Your task to perform on an android device: clear history in the chrome app Image 0: 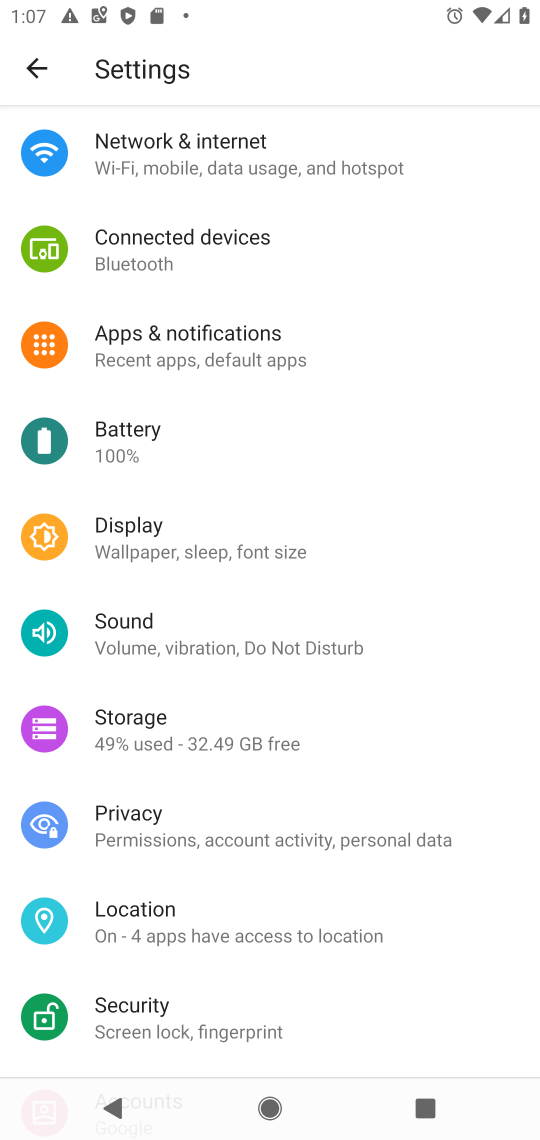
Step 0: press home button
Your task to perform on an android device: clear history in the chrome app Image 1: 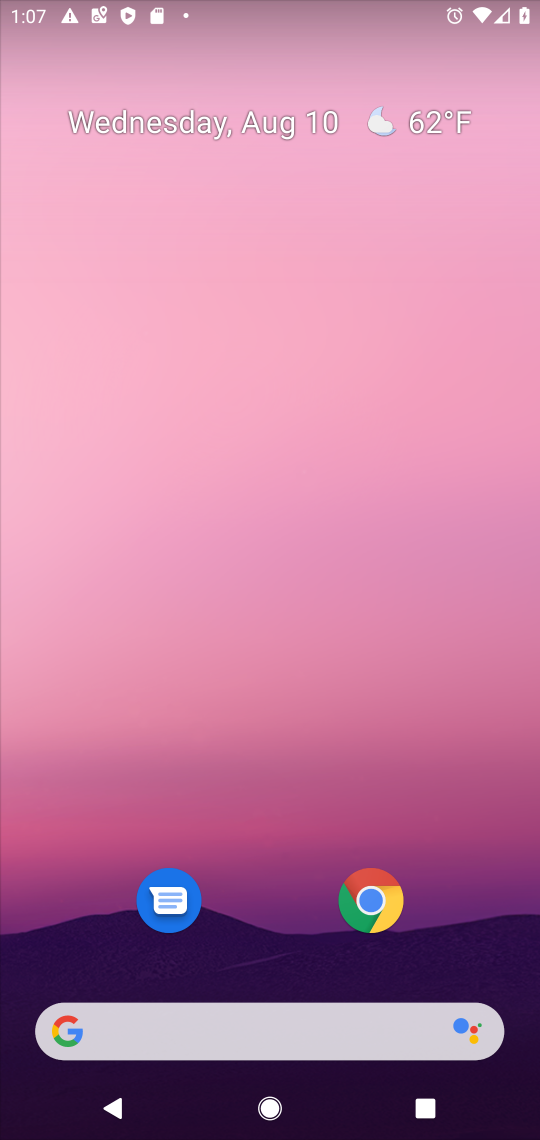
Step 1: click (365, 909)
Your task to perform on an android device: clear history in the chrome app Image 2: 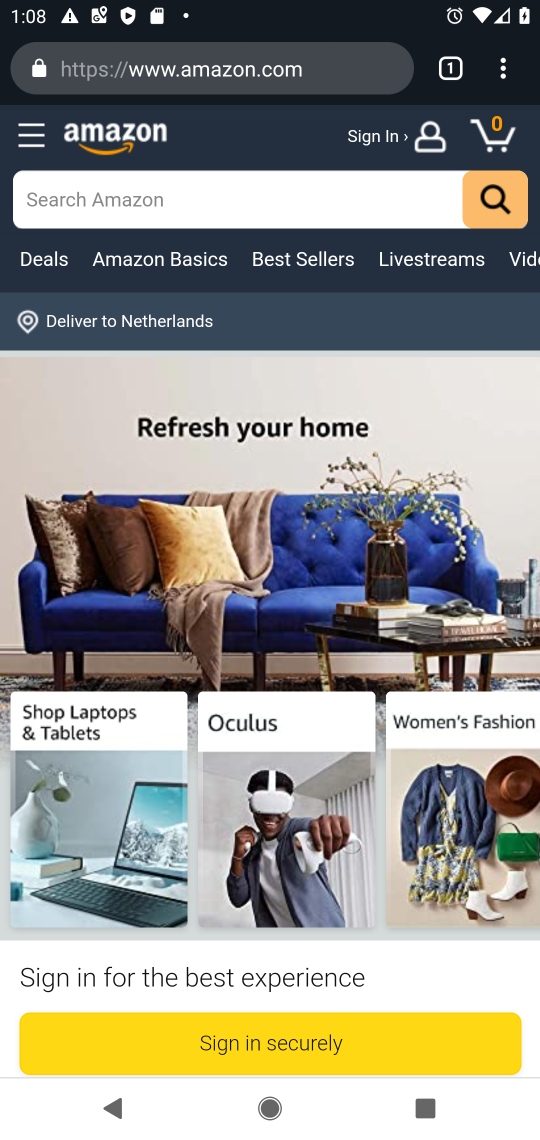
Step 2: click (507, 78)
Your task to perform on an android device: clear history in the chrome app Image 3: 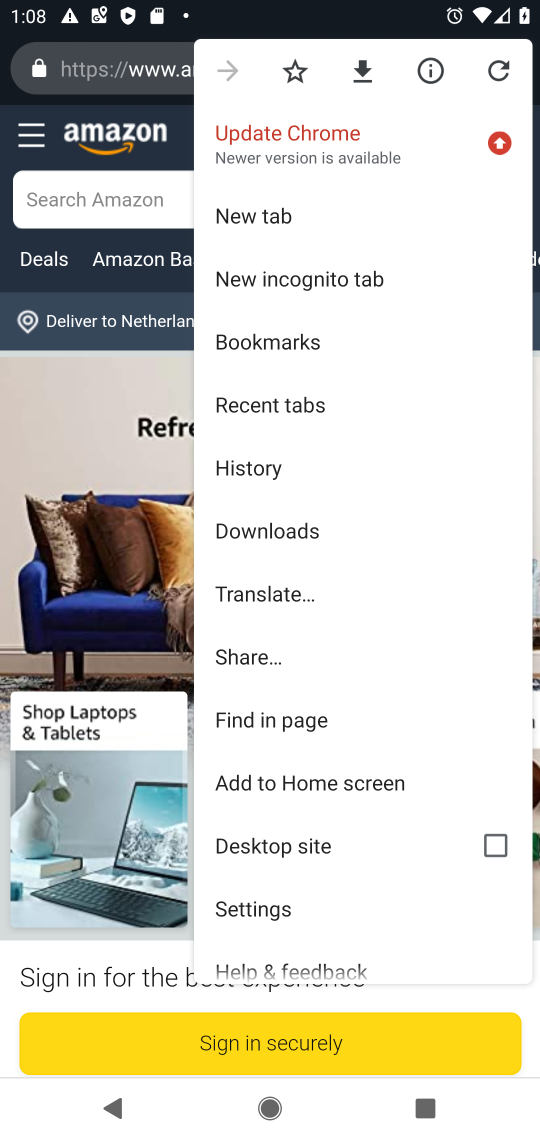
Step 3: click (263, 461)
Your task to perform on an android device: clear history in the chrome app Image 4: 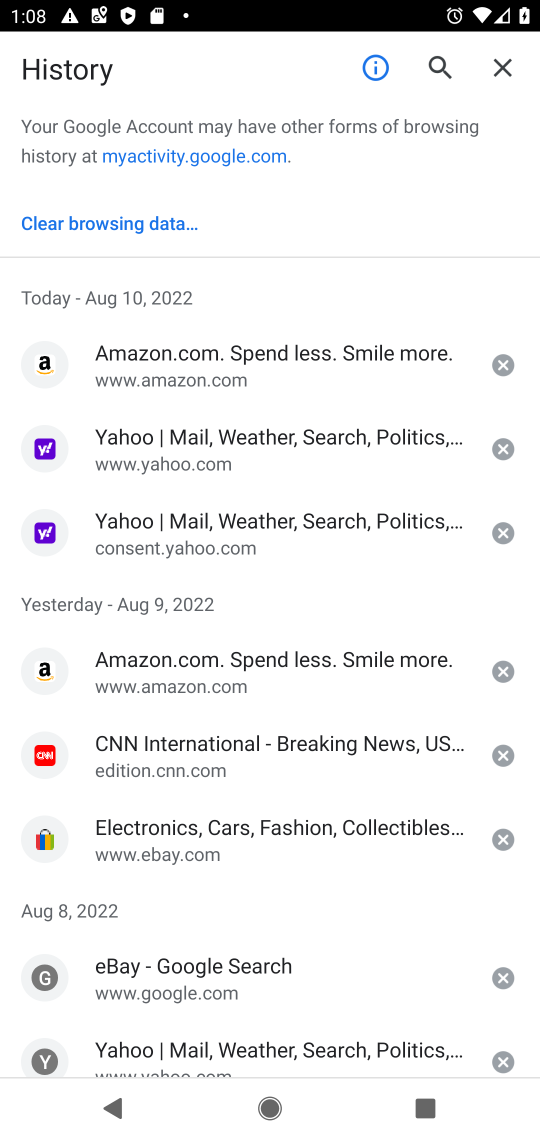
Step 4: click (140, 217)
Your task to perform on an android device: clear history in the chrome app Image 5: 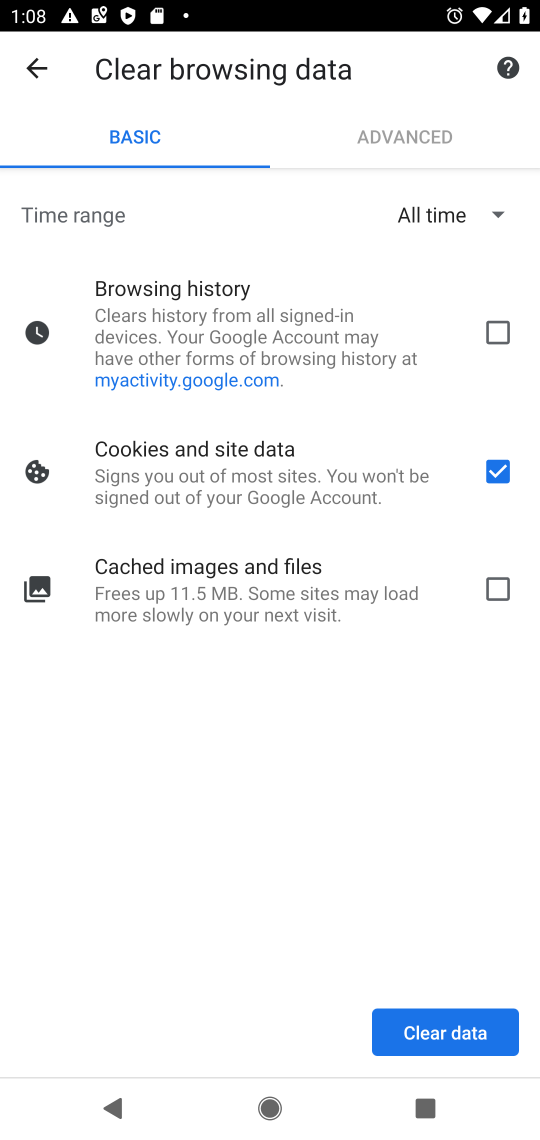
Step 5: click (498, 326)
Your task to perform on an android device: clear history in the chrome app Image 6: 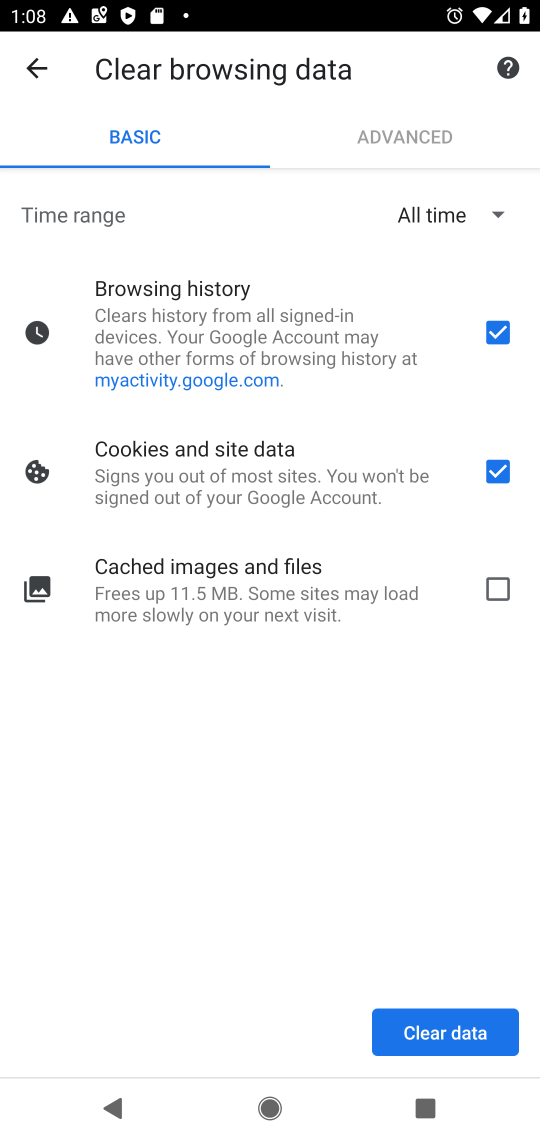
Step 6: click (498, 464)
Your task to perform on an android device: clear history in the chrome app Image 7: 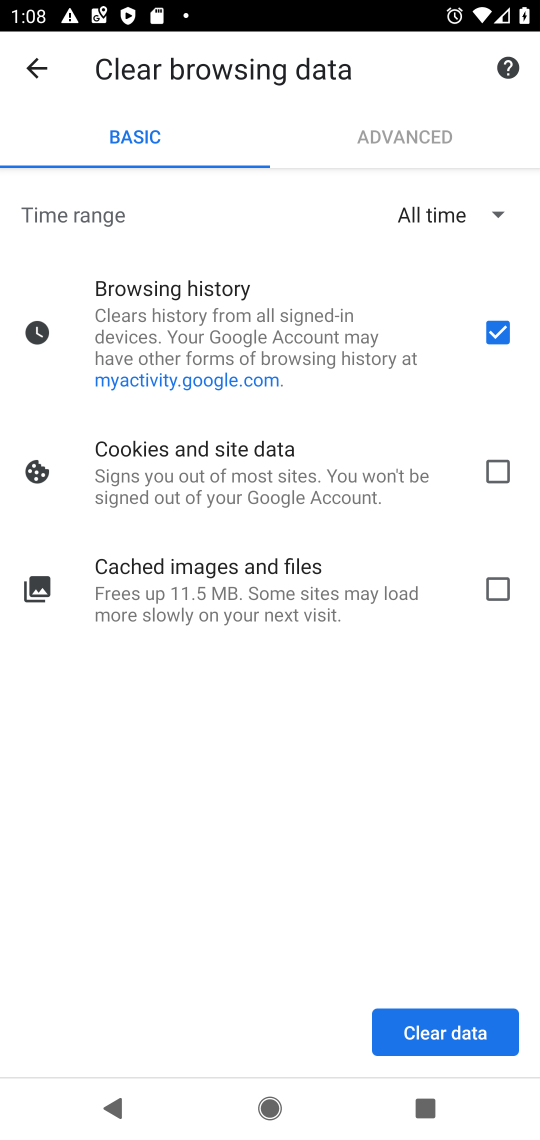
Step 7: click (456, 1036)
Your task to perform on an android device: clear history in the chrome app Image 8: 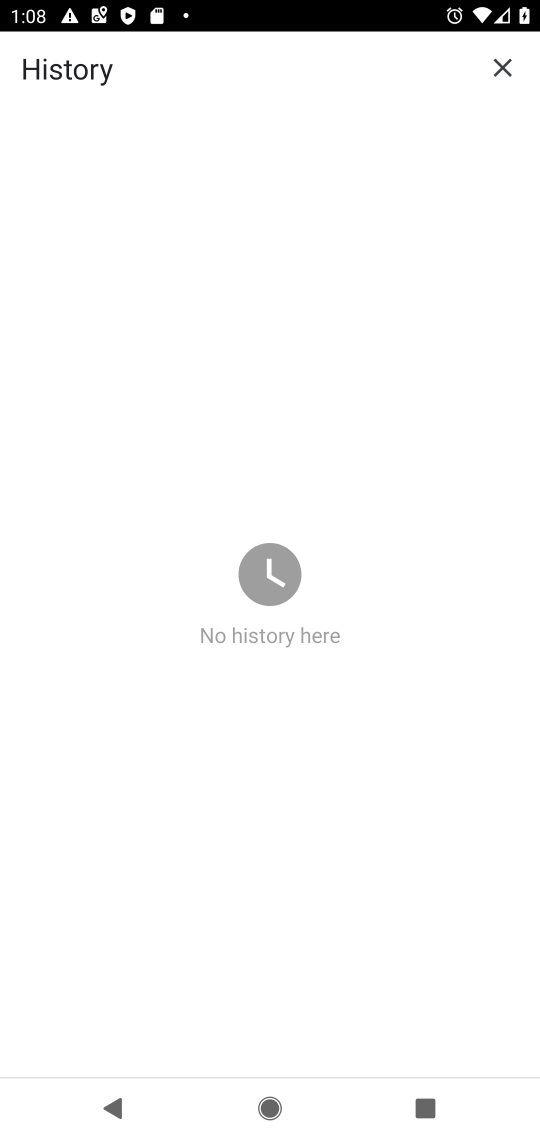
Step 8: task complete